Your task to perform on an android device: What's the weather going to be this weekend? Image 0: 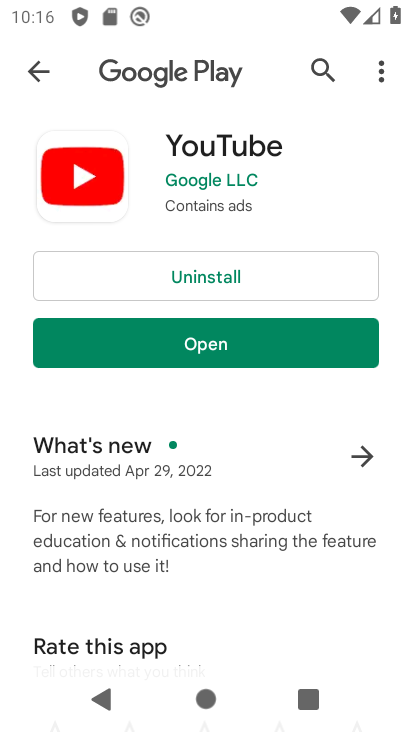
Step 0: press home button
Your task to perform on an android device: What's the weather going to be this weekend? Image 1: 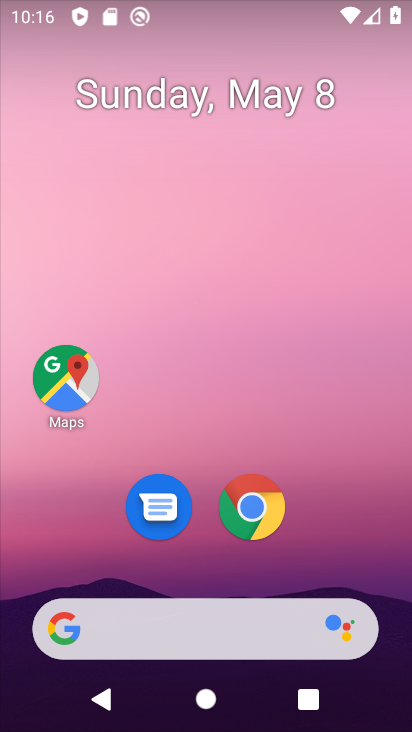
Step 1: drag from (315, 568) to (250, 68)
Your task to perform on an android device: What's the weather going to be this weekend? Image 2: 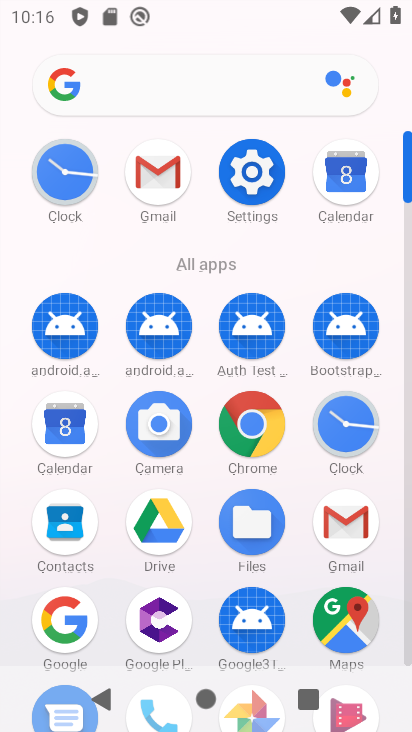
Step 2: click (144, 82)
Your task to perform on an android device: What's the weather going to be this weekend? Image 3: 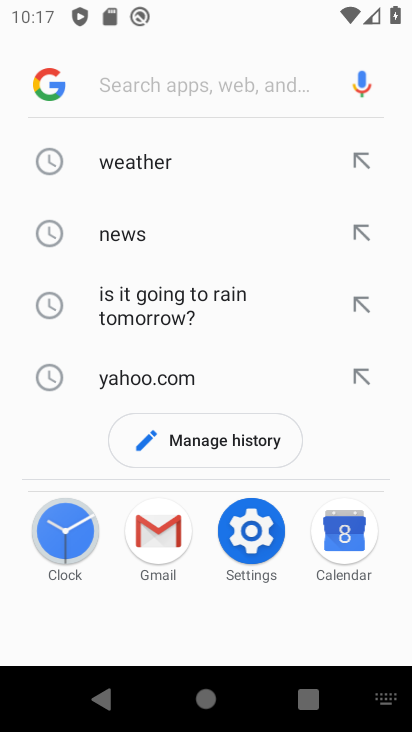
Step 3: type "what's the weather going to be this weekend"
Your task to perform on an android device: What's the weather going to be this weekend? Image 4: 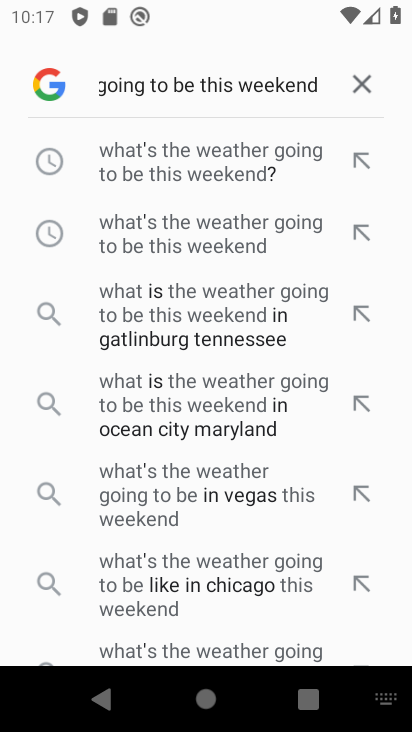
Step 4: click (191, 165)
Your task to perform on an android device: What's the weather going to be this weekend? Image 5: 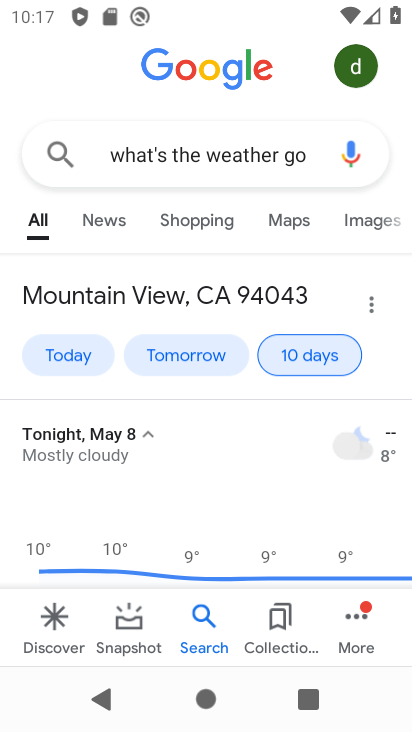
Step 5: drag from (245, 547) to (241, 251)
Your task to perform on an android device: What's the weather going to be this weekend? Image 6: 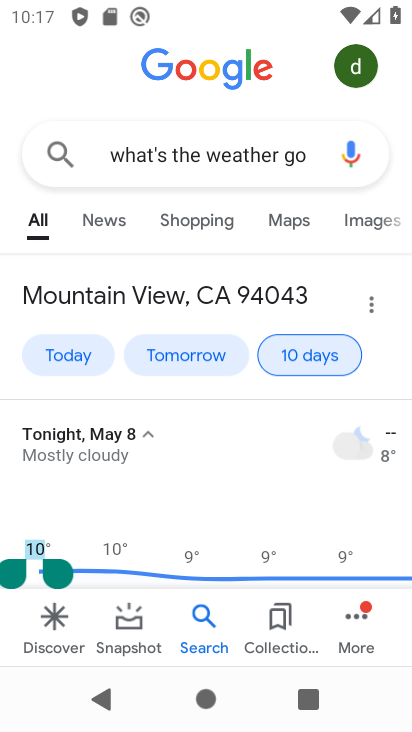
Step 6: drag from (248, 457) to (283, 264)
Your task to perform on an android device: What's the weather going to be this weekend? Image 7: 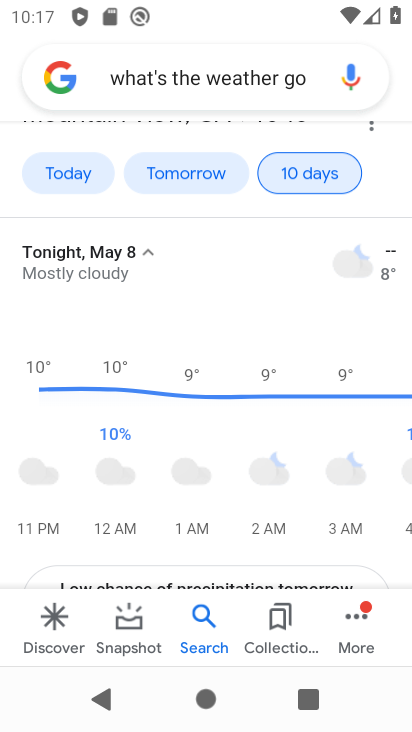
Step 7: drag from (290, 531) to (307, 267)
Your task to perform on an android device: What's the weather going to be this weekend? Image 8: 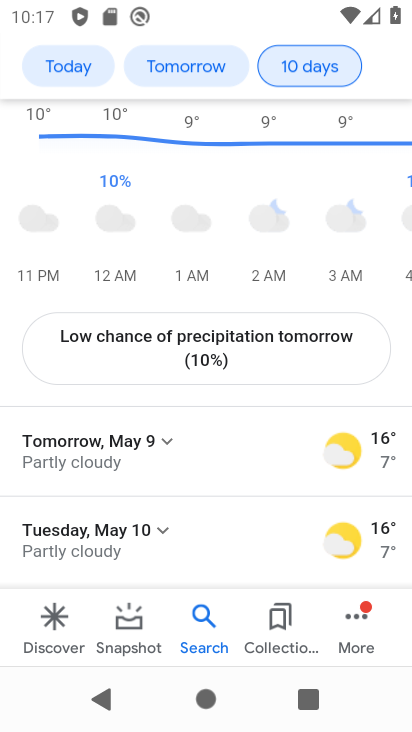
Step 8: drag from (261, 522) to (272, 314)
Your task to perform on an android device: What's the weather going to be this weekend? Image 9: 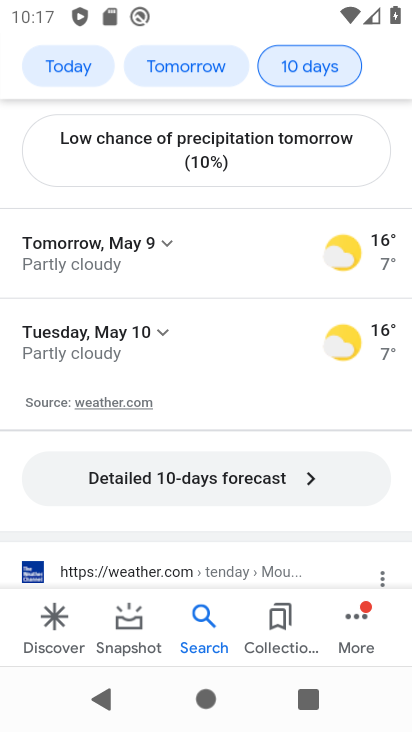
Step 9: click (167, 234)
Your task to perform on an android device: What's the weather going to be this weekend? Image 10: 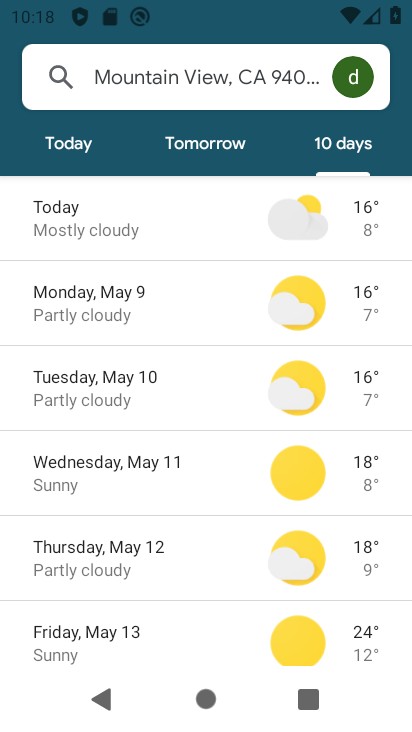
Step 10: task complete